Your task to perform on an android device: set default search engine in the chrome app Image 0: 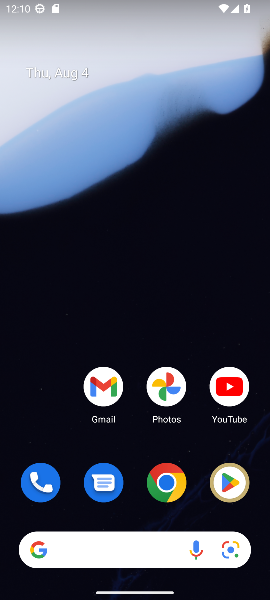
Step 0: click (158, 470)
Your task to perform on an android device: set default search engine in the chrome app Image 1: 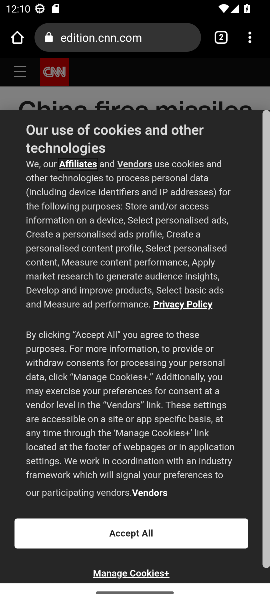
Step 1: click (246, 38)
Your task to perform on an android device: set default search engine in the chrome app Image 2: 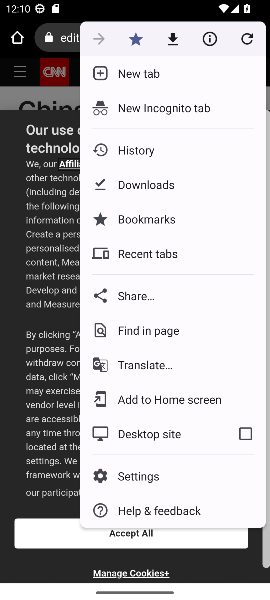
Step 2: click (134, 486)
Your task to perform on an android device: set default search engine in the chrome app Image 3: 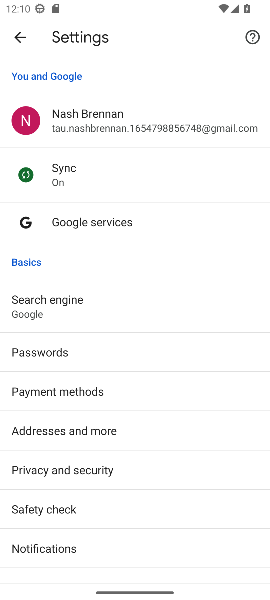
Step 3: click (116, 297)
Your task to perform on an android device: set default search engine in the chrome app Image 4: 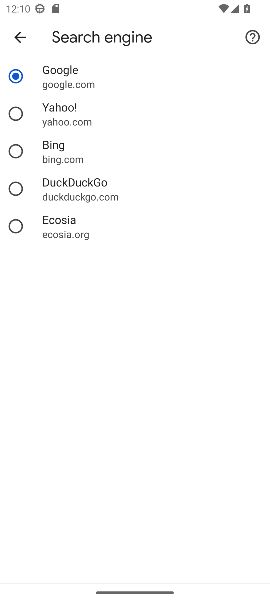
Step 4: task complete